Your task to perform on an android device: Open Youtube and go to "Your channel" Image 0: 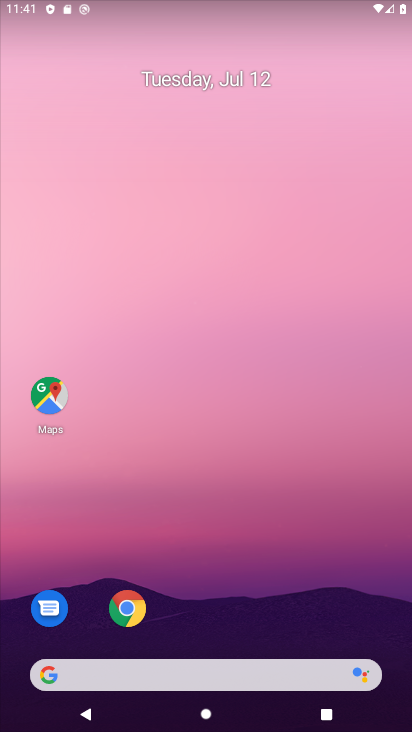
Step 0: drag from (224, 580) to (295, 7)
Your task to perform on an android device: Open Youtube and go to "Your channel" Image 1: 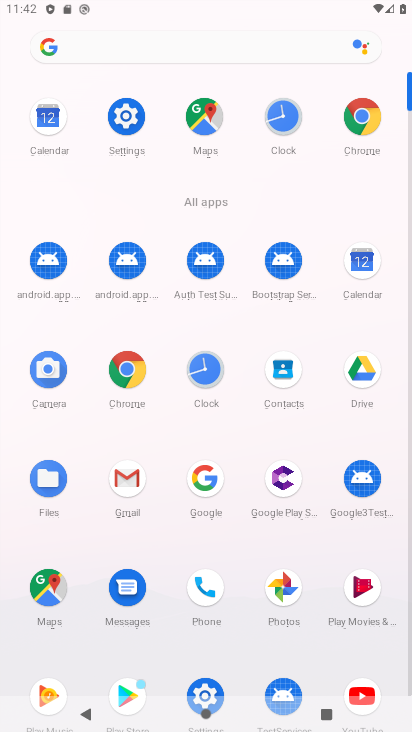
Step 1: click (352, 681)
Your task to perform on an android device: Open Youtube and go to "Your channel" Image 2: 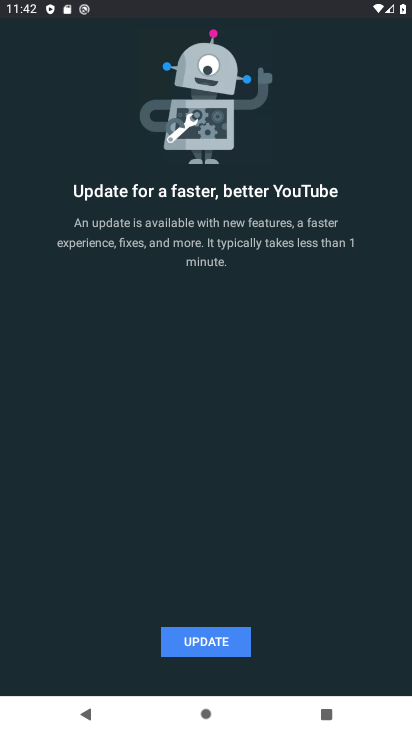
Step 2: click (182, 648)
Your task to perform on an android device: Open Youtube and go to "Your channel" Image 3: 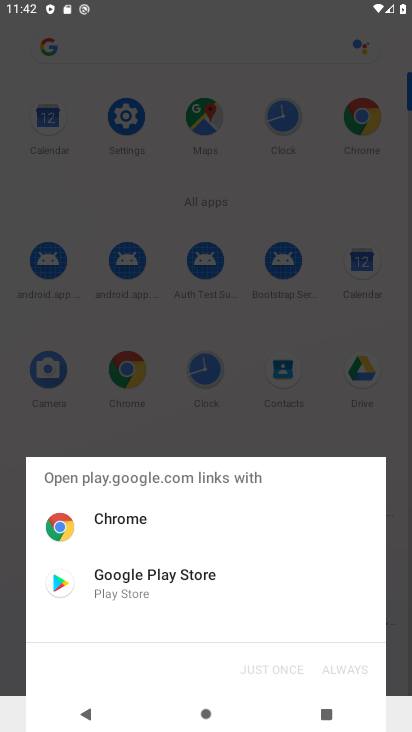
Step 3: click (191, 576)
Your task to perform on an android device: Open Youtube and go to "Your channel" Image 4: 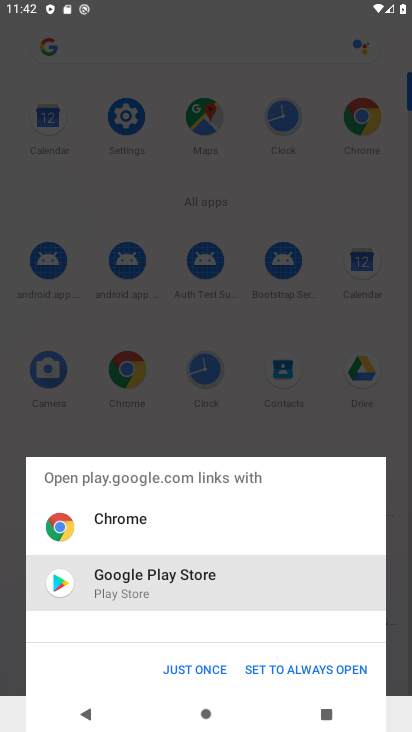
Step 4: click (213, 662)
Your task to perform on an android device: Open Youtube and go to "Your channel" Image 5: 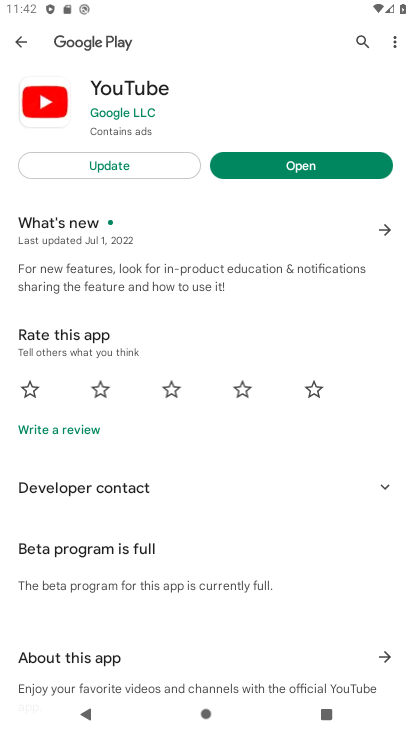
Step 5: click (91, 166)
Your task to perform on an android device: Open Youtube and go to "Your channel" Image 6: 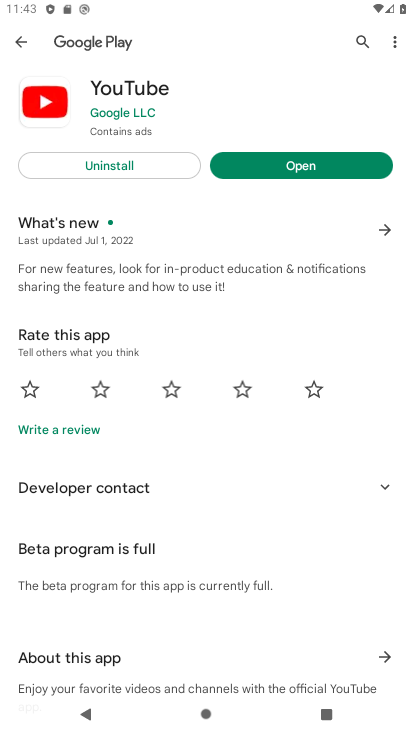
Step 6: click (253, 169)
Your task to perform on an android device: Open Youtube and go to "Your channel" Image 7: 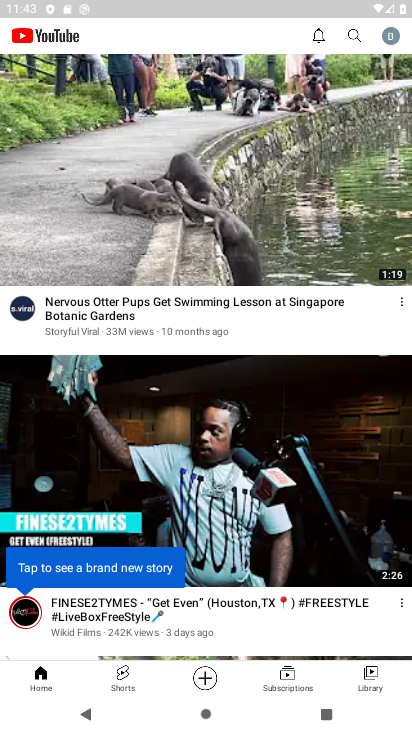
Step 7: click (396, 32)
Your task to perform on an android device: Open Youtube and go to "Your channel" Image 8: 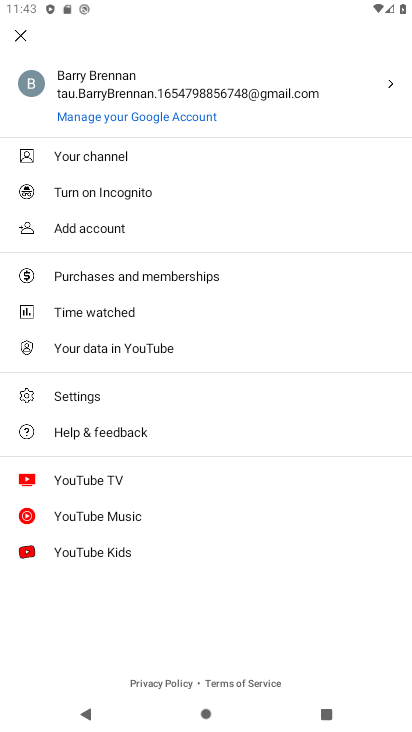
Step 8: click (91, 152)
Your task to perform on an android device: Open Youtube and go to "Your channel" Image 9: 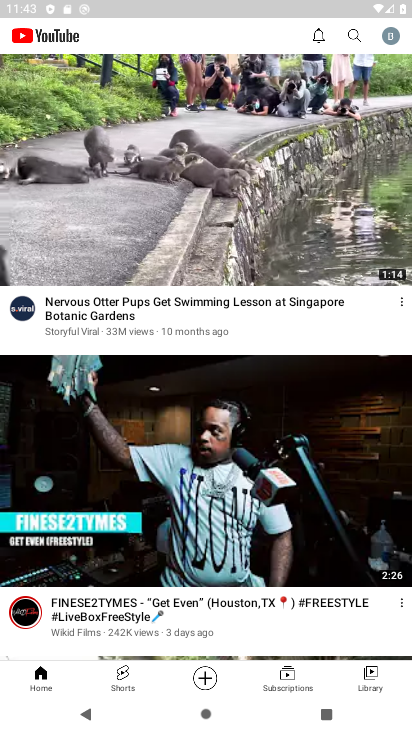
Step 9: task complete